Your task to perform on an android device: What's the news in Trinidad and Tobago? Image 0: 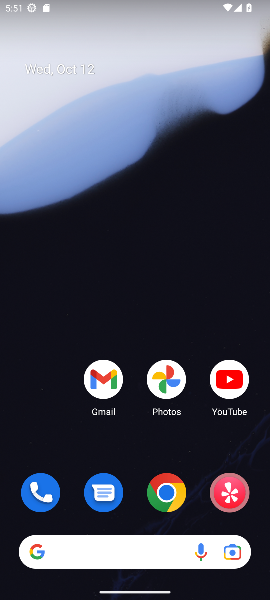
Step 0: click (161, 497)
Your task to perform on an android device: What's the news in Trinidad and Tobago? Image 1: 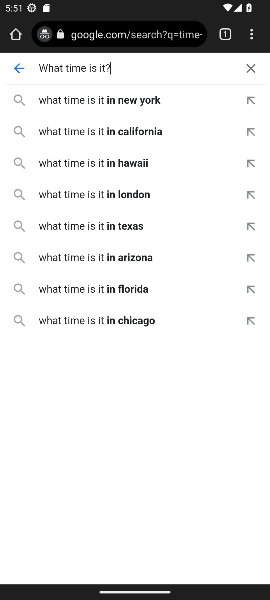
Step 1: click (101, 36)
Your task to perform on an android device: What's the news in Trinidad and Tobago? Image 2: 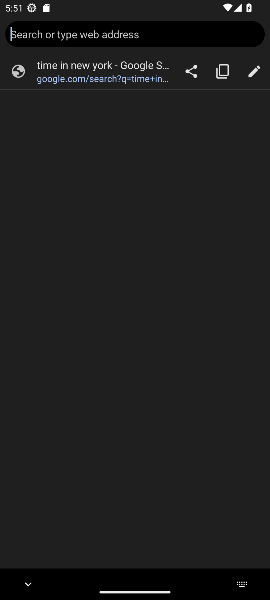
Step 2: type "news in Trinidad and Tobago"
Your task to perform on an android device: What's the news in Trinidad and Tobago? Image 3: 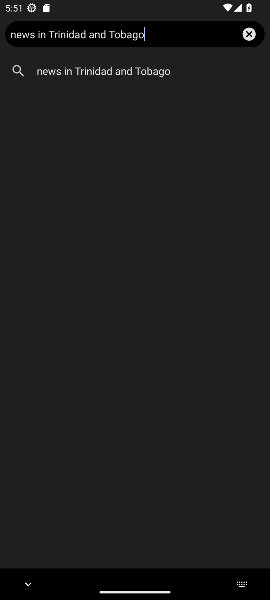
Step 3: click (80, 75)
Your task to perform on an android device: What's the news in Trinidad and Tobago? Image 4: 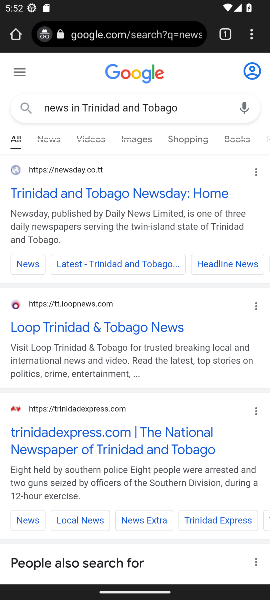
Step 4: click (54, 139)
Your task to perform on an android device: What's the news in Trinidad and Tobago? Image 5: 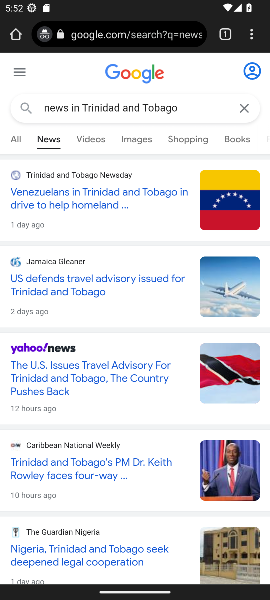
Step 5: click (69, 206)
Your task to perform on an android device: What's the news in Trinidad and Tobago? Image 6: 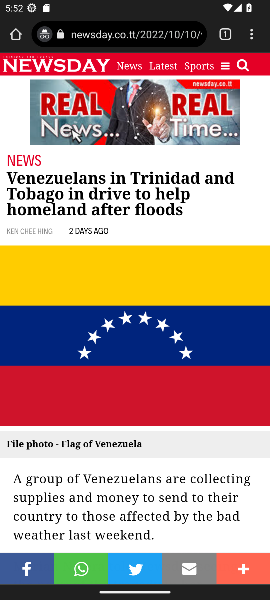
Step 6: task complete